Your task to perform on an android device: turn off javascript in the chrome app Image 0: 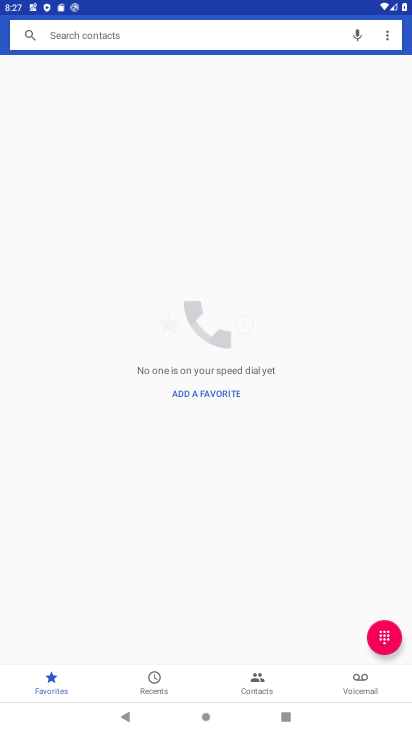
Step 0: press home button
Your task to perform on an android device: turn off javascript in the chrome app Image 1: 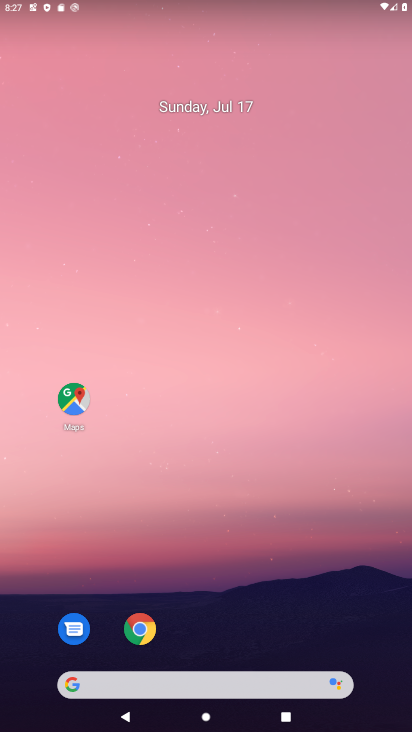
Step 1: click (137, 637)
Your task to perform on an android device: turn off javascript in the chrome app Image 2: 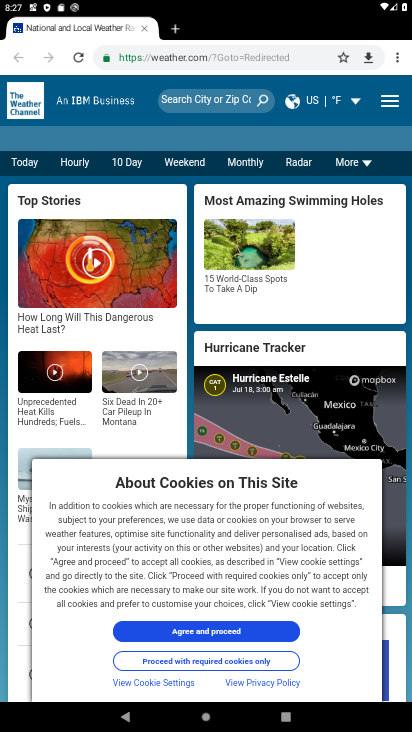
Step 2: click (400, 62)
Your task to perform on an android device: turn off javascript in the chrome app Image 3: 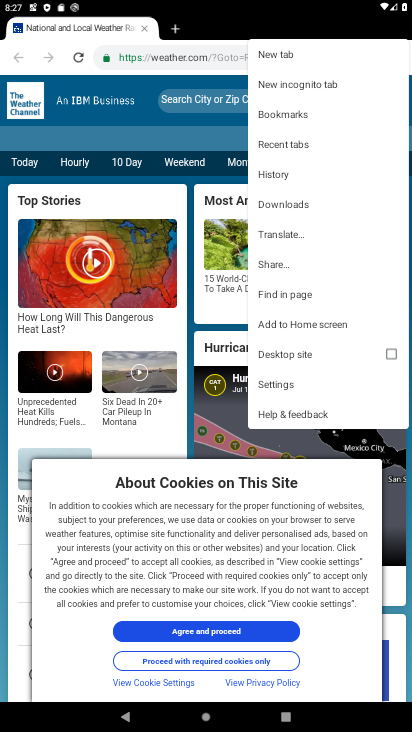
Step 3: click (279, 380)
Your task to perform on an android device: turn off javascript in the chrome app Image 4: 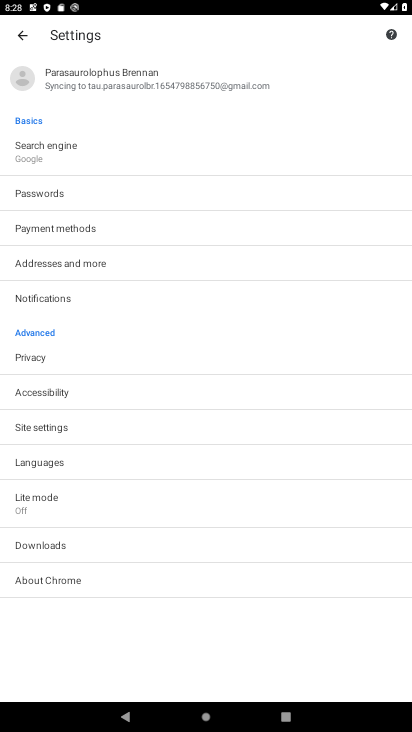
Step 4: click (49, 423)
Your task to perform on an android device: turn off javascript in the chrome app Image 5: 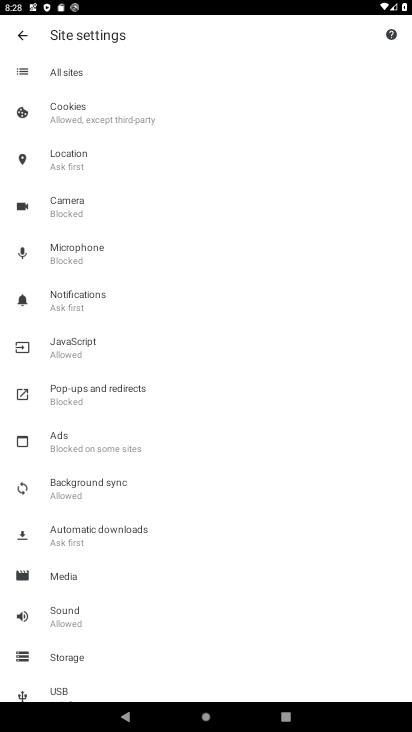
Step 5: click (68, 342)
Your task to perform on an android device: turn off javascript in the chrome app Image 6: 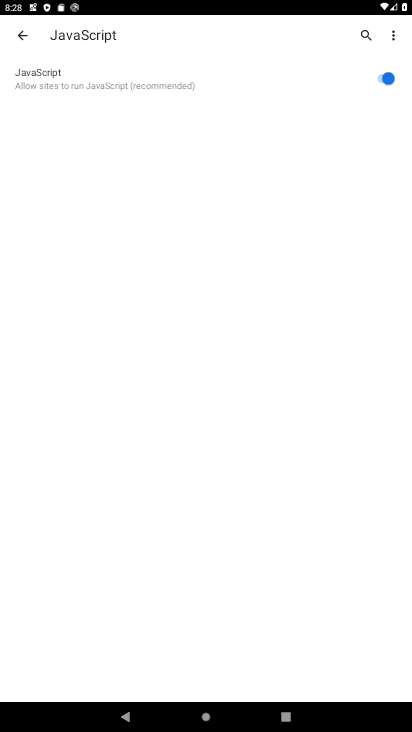
Step 6: click (385, 75)
Your task to perform on an android device: turn off javascript in the chrome app Image 7: 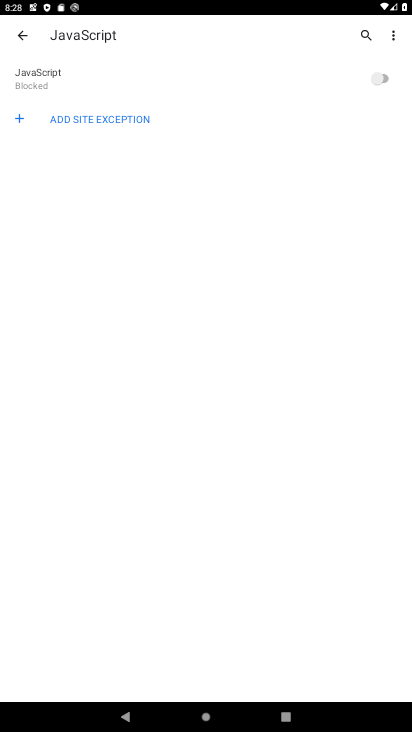
Step 7: task complete